Your task to perform on an android device: Open Google Maps and go to "Timeline" Image 0: 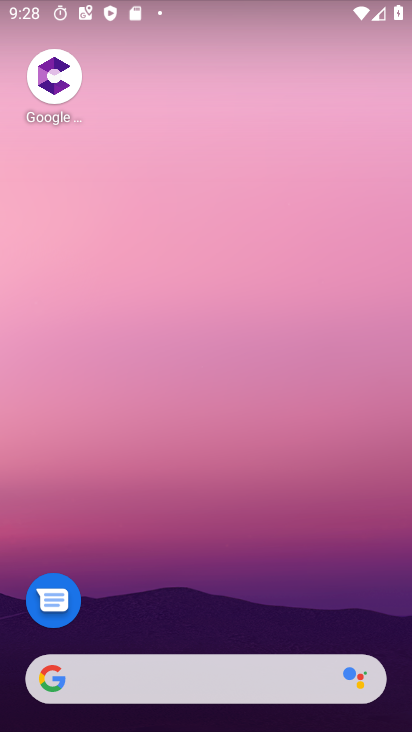
Step 0: drag from (242, 599) to (184, 32)
Your task to perform on an android device: Open Google Maps and go to "Timeline" Image 1: 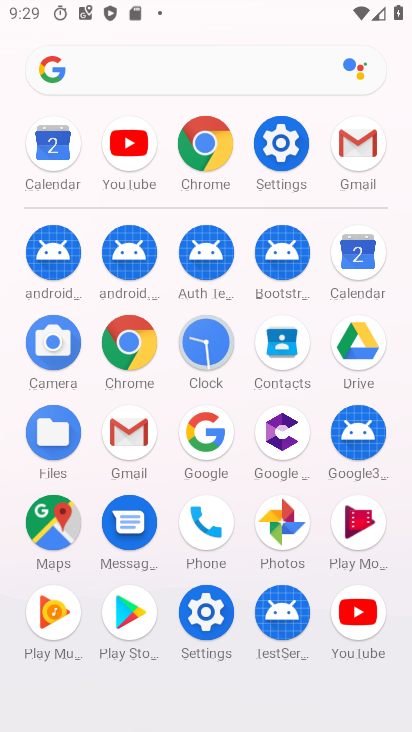
Step 1: click (53, 519)
Your task to perform on an android device: Open Google Maps and go to "Timeline" Image 2: 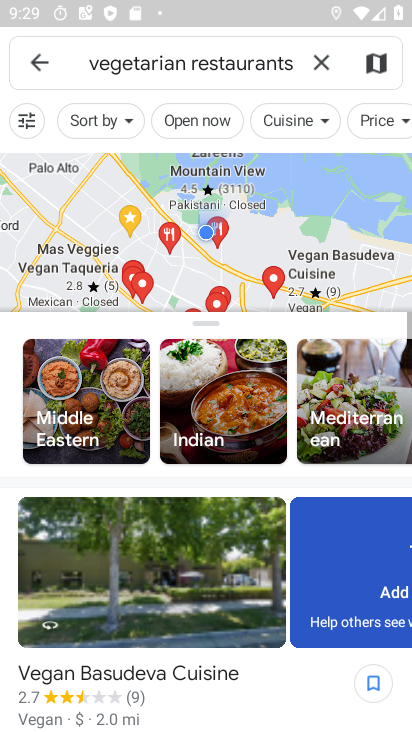
Step 2: click (323, 59)
Your task to perform on an android device: Open Google Maps and go to "Timeline" Image 3: 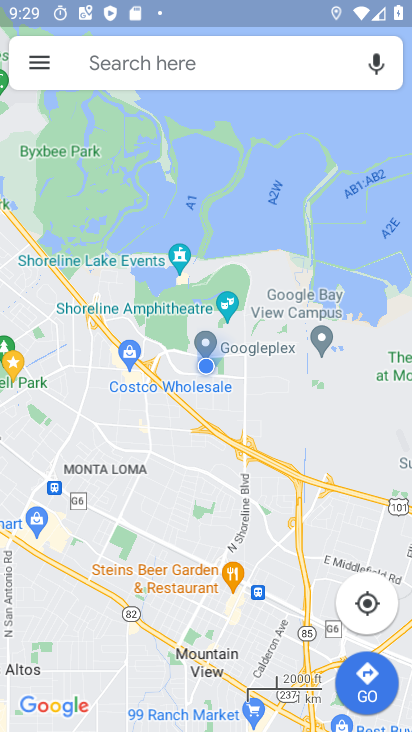
Step 3: click (32, 64)
Your task to perform on an android device: Open Google Maps and go to "Timeline" Image 4: 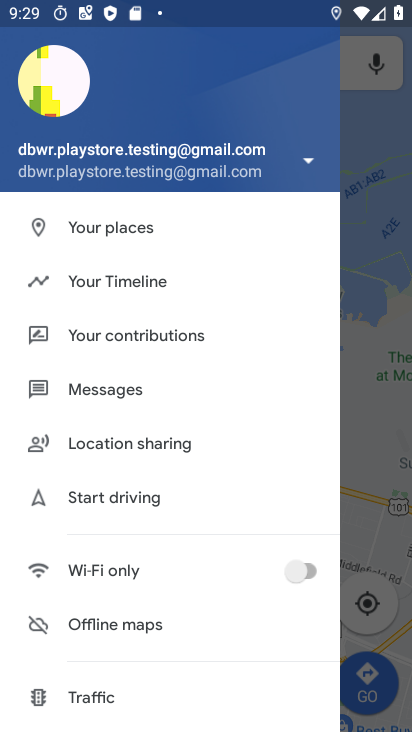
Step 4: click (109, 275)
Your task to perform on an android device: Open Google Maps and go to "Timeline" Image 5: 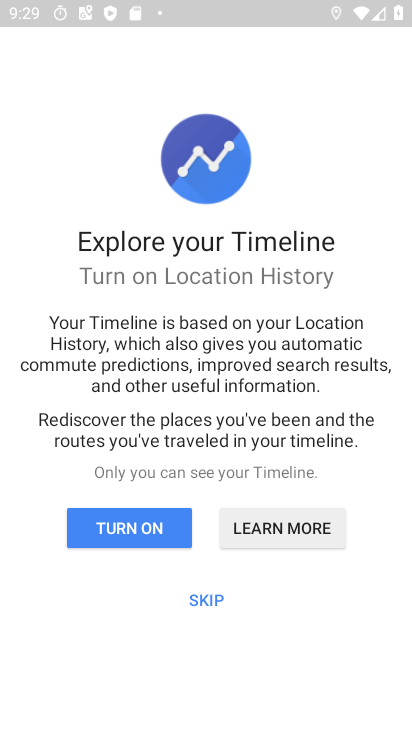
Step 5: click (209, 596)
Your task to perform on an android device: Open Google Maps and go to "Timeline" Image 6: 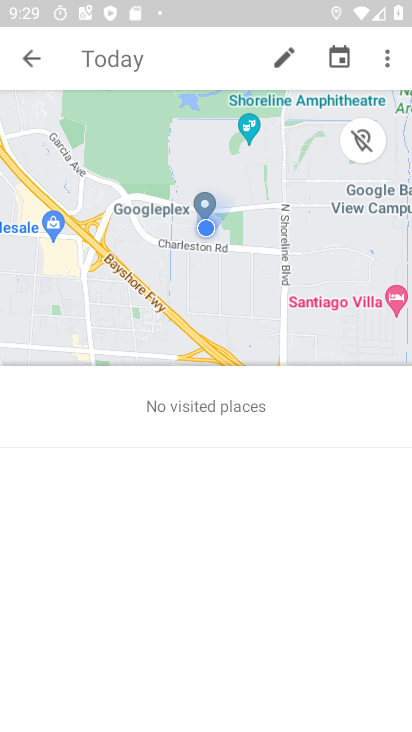
Step 6: task complete